Your task to perform on an android device: Search for pizza restaurants on Maps Image 0: 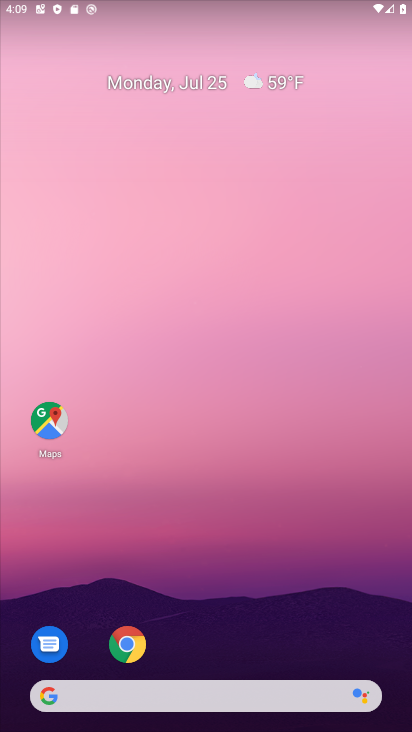
Step 0: click (53, 415)
Your task to perform on an android device: Search for pizza restaurants on Maps Image 1: 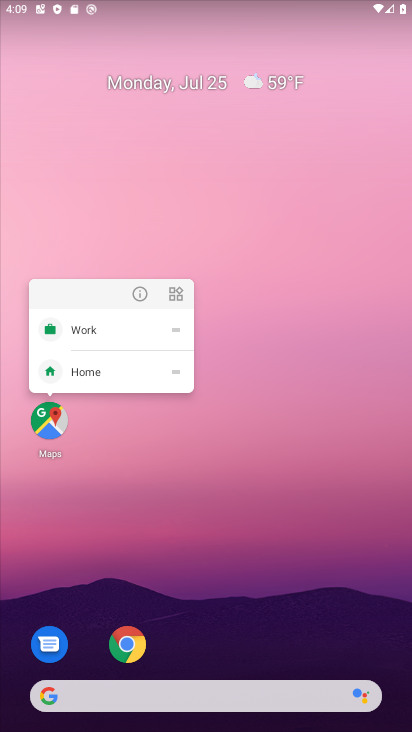
Step 1: click (53, 415)
Your task to perform on an android device: Search for pizza restaurants on Maps Image 2: 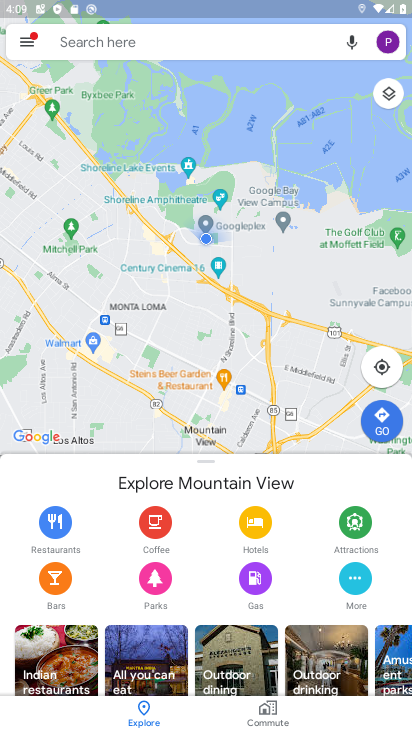
Step 2: click (62, 35)
Your task to perform on an android device: Search for pizza restaurants on Maps Image 3: 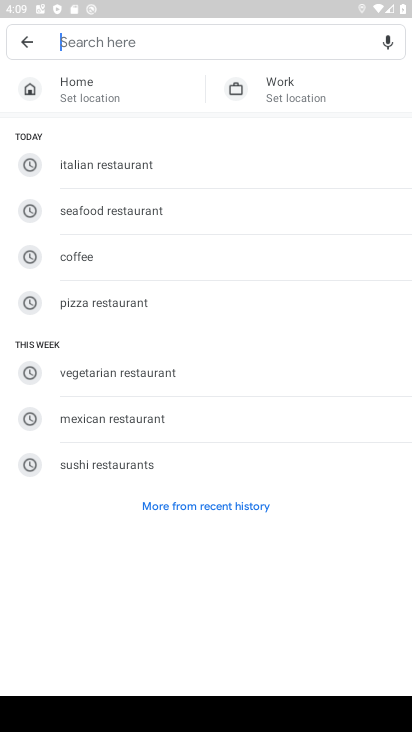
Step 3: click (125, 296)
Your task to perform on an android device: Search for pizza restaurants on Maps Image 4: 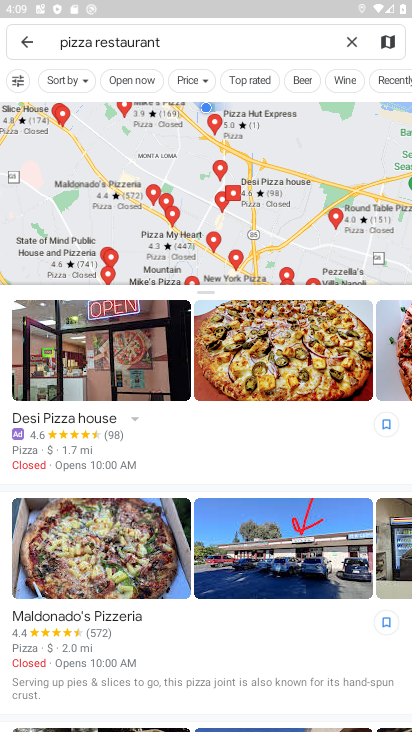
Step 4: task complete